Your task to perform on an android device: Go to display settings Image 0: 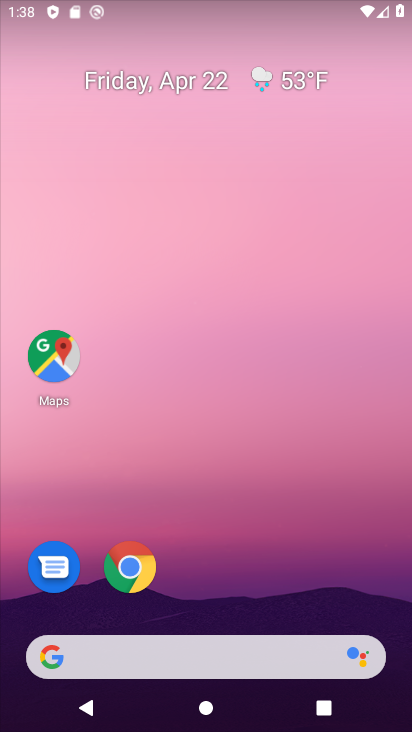
Step 0: drag from (240, 562) to (240, 89)
Your task to perform on an android device: Go to display settings Image 1: 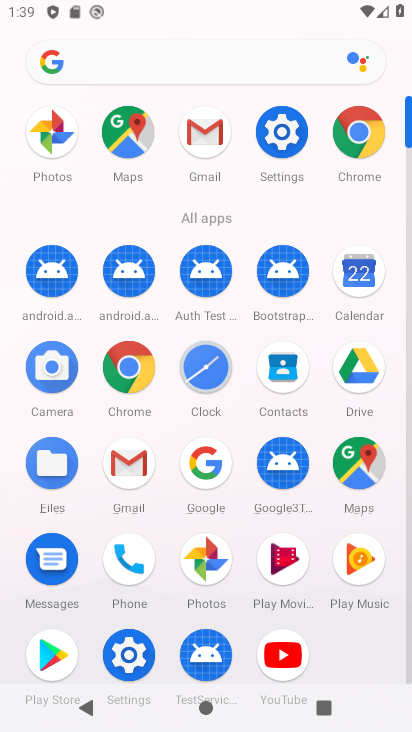
Step 1: click (285, 130)
Your task to perform on an android device: Go to display settings Image 2: 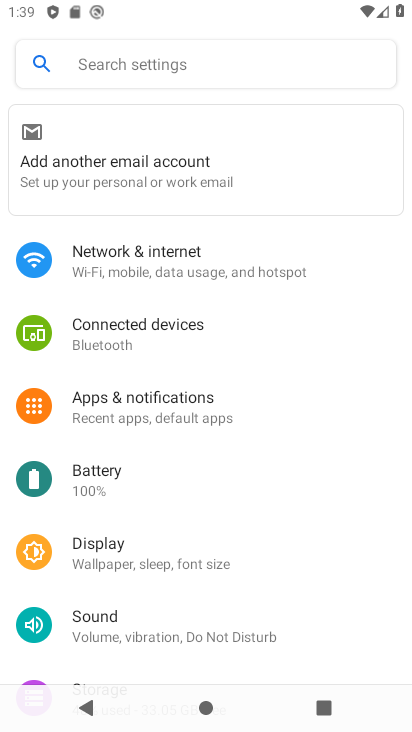
Step 2: click (206, 554)
Your task to perform on an android device: Go to display settings Image 3: 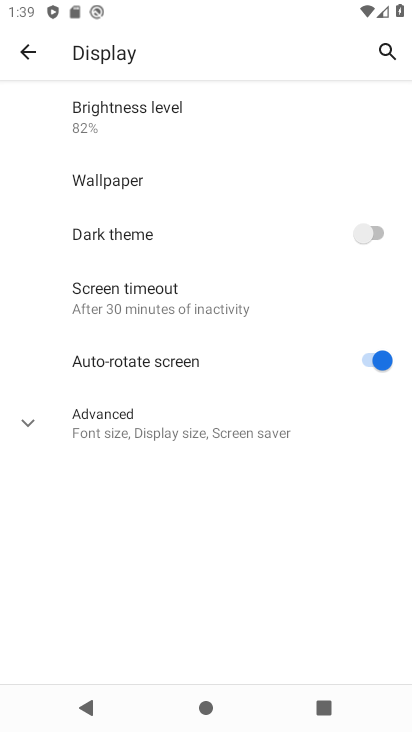
Step 3: task complete